Your task to perform on an android device: toggle wifi Image 0: 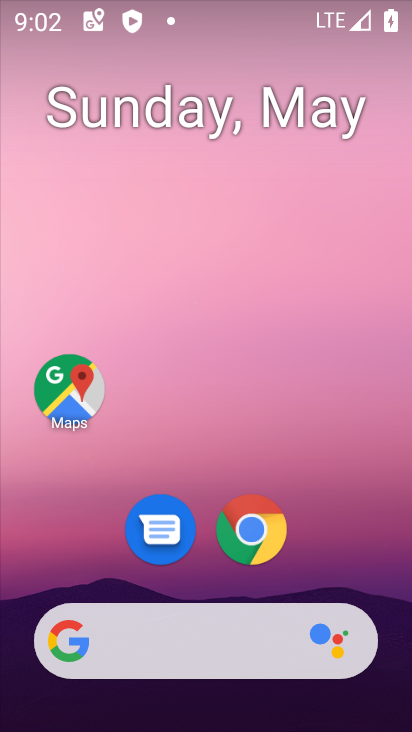
Step 0: drag from (218, 578) to (210, 26)
Your task to perform on an android device: toggle wifi Image 1: 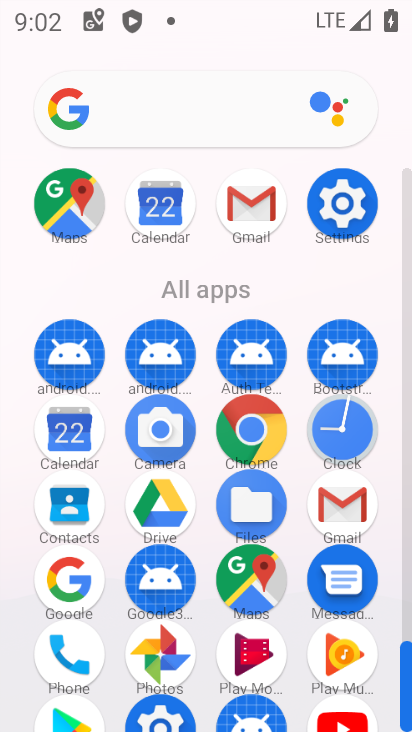
Step 1: click (340, 202)
Your task to perform on an android device: toggle wifi Image 2: 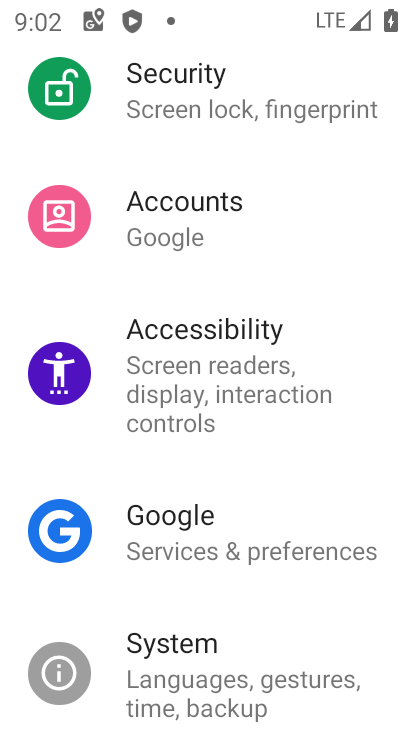
Step 2: drag from (231, 267) to (237, 581)
Your task to perform on an android device: toggle wifi Image 3: 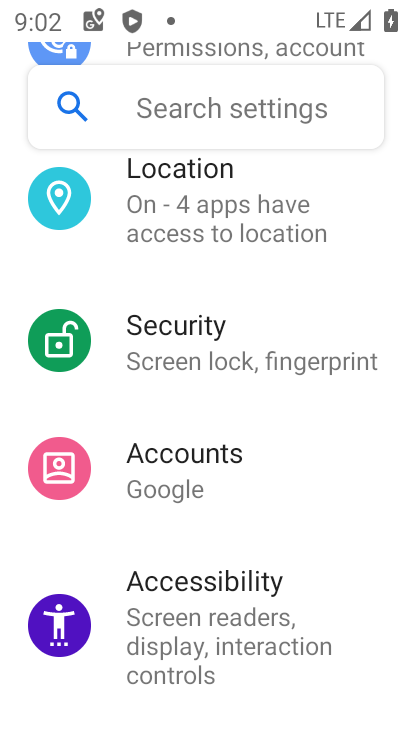
Step 3: drag from (218, 279) to (252, 589)
Your task to perform on an android device: toggle wifi Image 4: 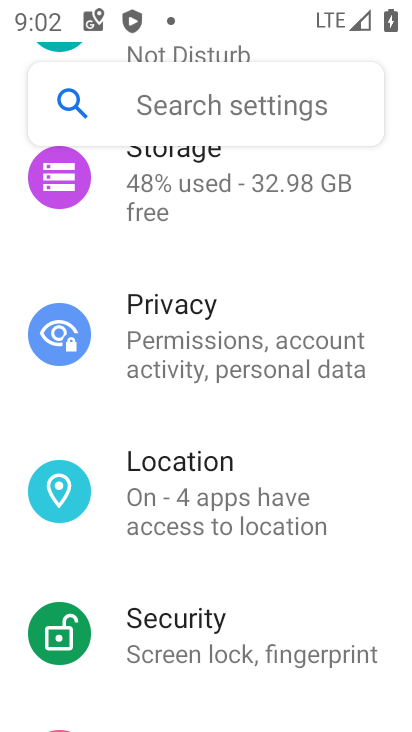
Step 4: drag from (244, 293) to (246, 570)
Your task to perform on an android device: toggle wifi Image 5: 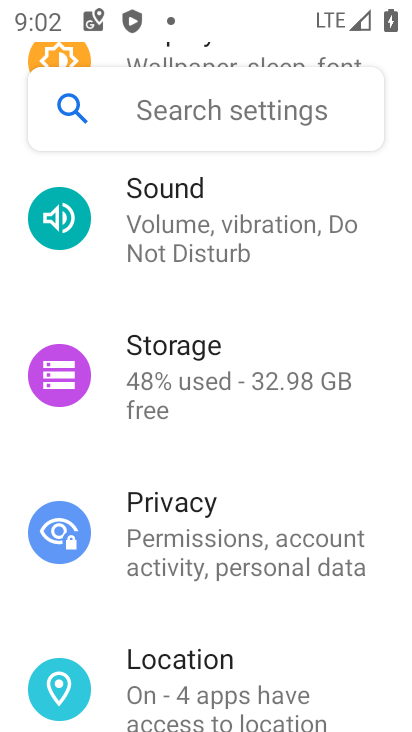
Step 5: drag from (252, 310) to (243, 597)
Your task to perform on an android device: toggle wifi Image 6: 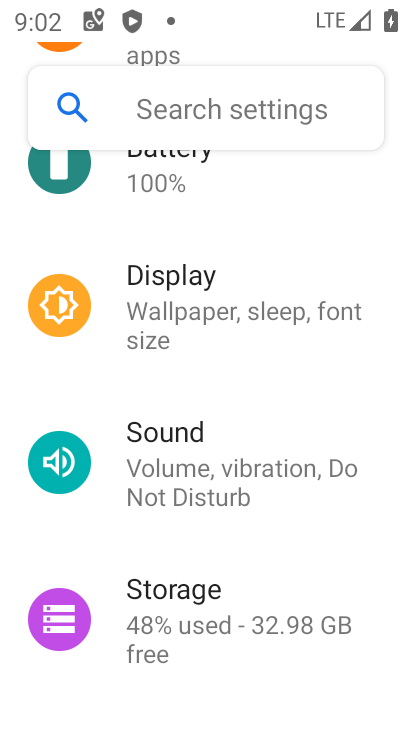
Step 6: drag from (216, 374) to (213, 607)
Your task to perform on an android device: toggle wifi Image 7: 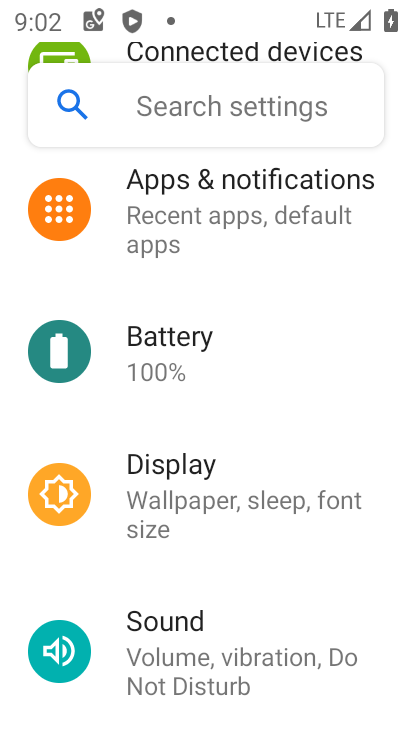
Step 7: drag from (209, 310) to (211, 505)
Your task to perform on an android device: toggle wifi Image 8: 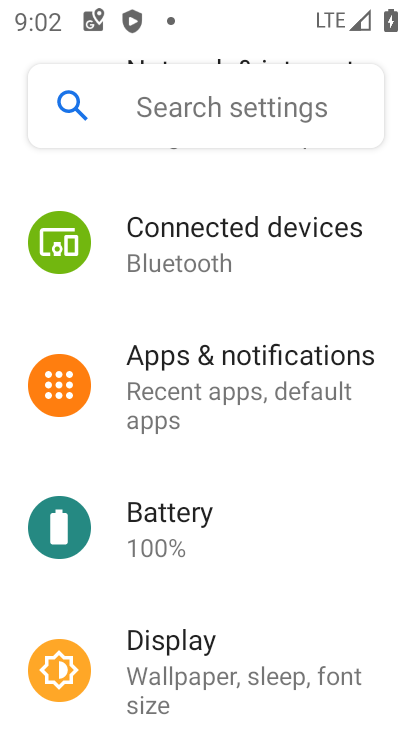
Step 8: drag from (210, 239) to (208, 440)
Your task to perform on an android device: toggle wifi Image 9: 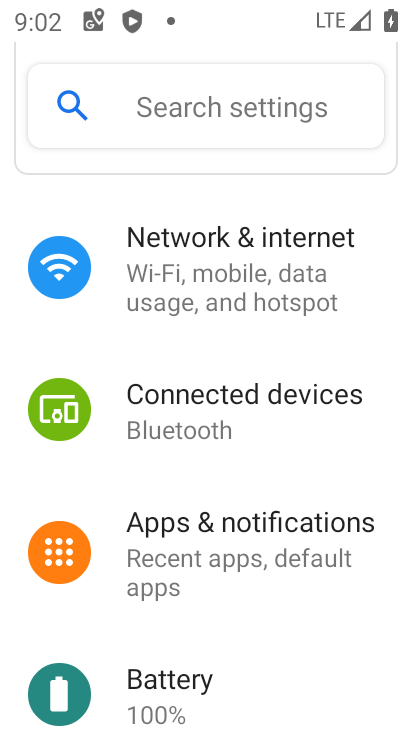
Step 9: click (199, 260)
Your task to perform on an android device: toggle wifi Image 10: 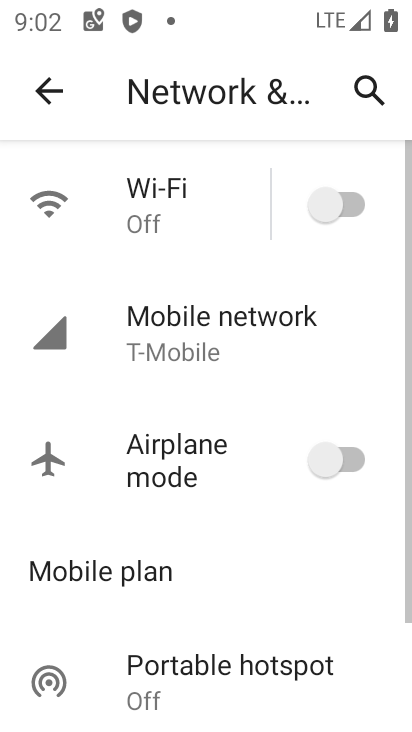
Step 10: click (344, 197)
Your task to perform on an android device: toggle wifi Image 11: 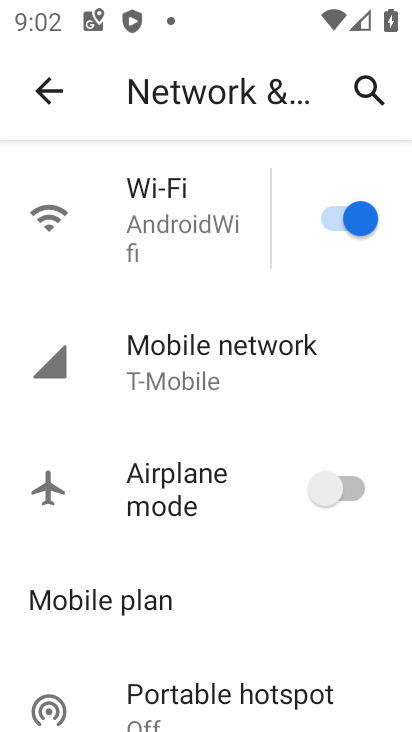
Step 11: task complete